Your task to perform on an android device: Go to Maps Image 0: 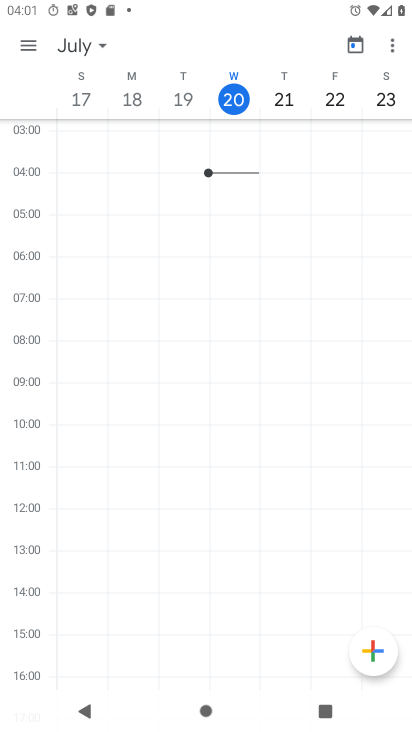
Step 0: press home button
Your task to perform on an android device: Go to Maps Image 1: 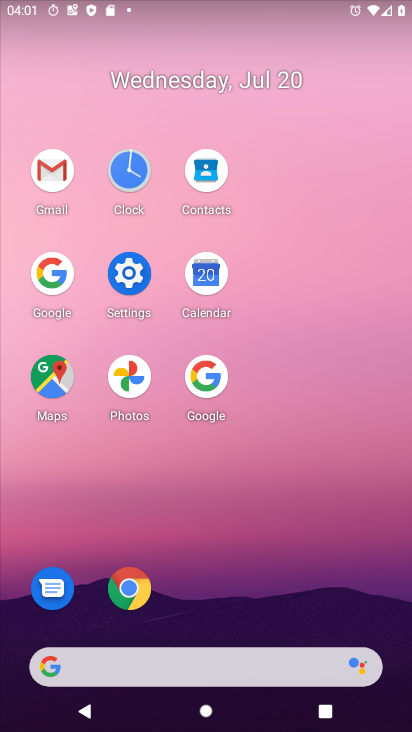
Step 1: click (52, 384)
Your task to perform on an android device: Go to Maps Image 2: 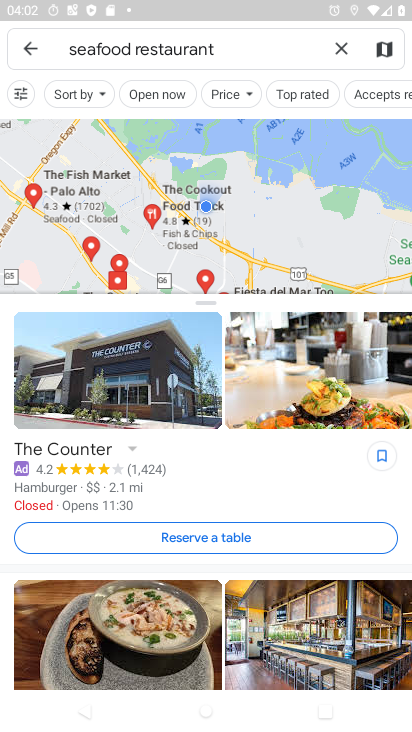
Step 2: task complete